Your task to perform on an android device: change your default location settings in chrome Image 0: 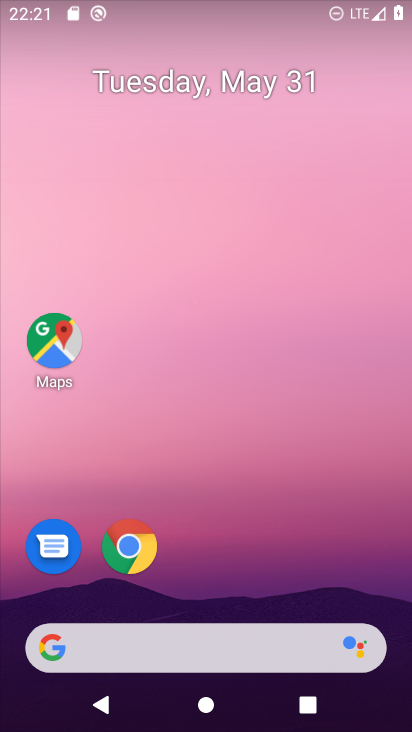
Step 0: click (121, 546)
Your task to perform on an android device: change your default location settings in chrome Image 1: 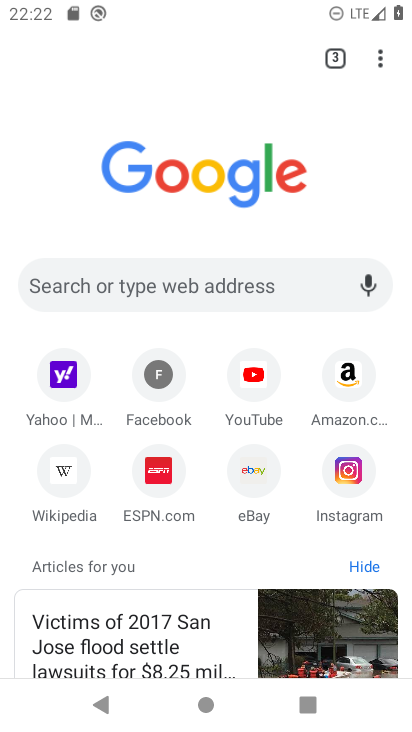
Step 1: click (378, 59)
Your task to perform on an android device: change your default location settings in chrome Image 2: 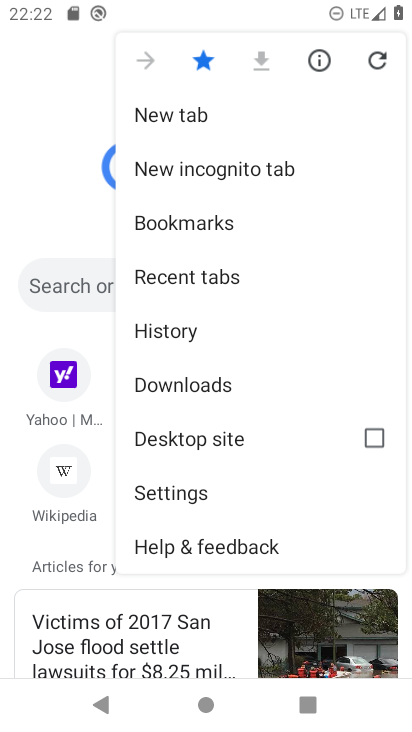
Step 2: drag from (271, 516) to (285, 251)
Your task to perform on an android device: change your default location settings in chrome Image 3: 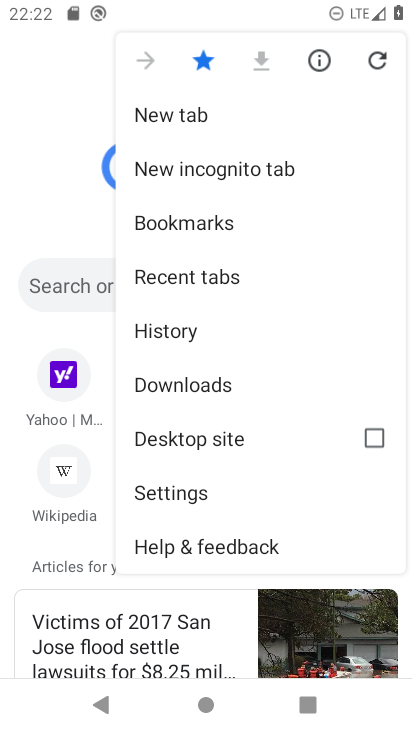
Step 3: click (187, 491)
Your task to perform on an android device: change your default location settings in chrome Image 4: 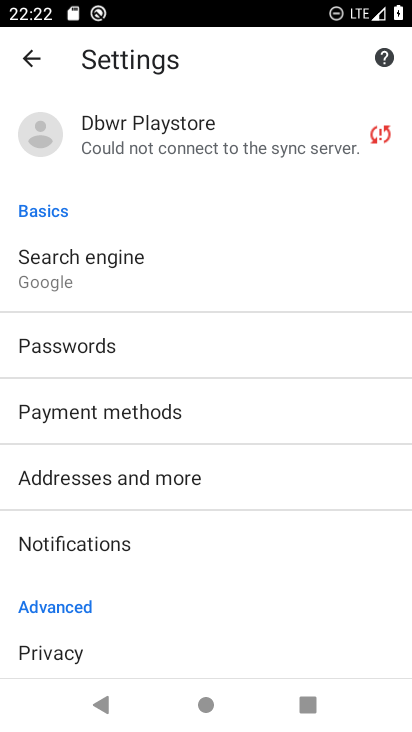
Step 4: drag from (228, 635) to (270, 249)
Your task to perform on an android device: change your default location settings in chrome Image 5: 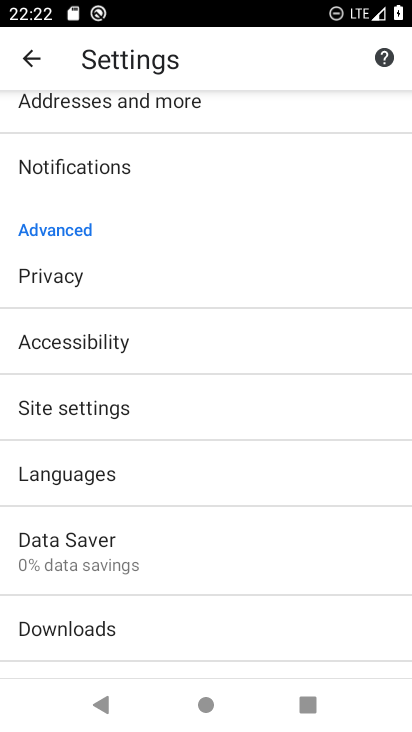
Step 5: drag from (231, 623) to (235, 346)
Your task to perform on an android device: change your default location settings in chrome Image 6: 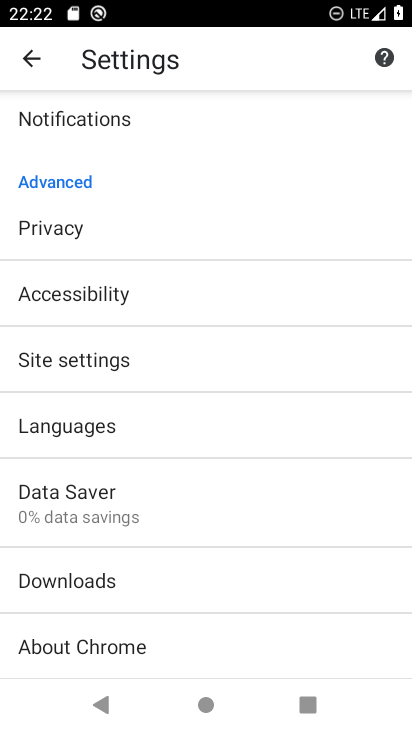
Step 6: drag from (213, 633) to (239, 251)
Your task to perform on an android device: change your default location settings in chrome Image 7: 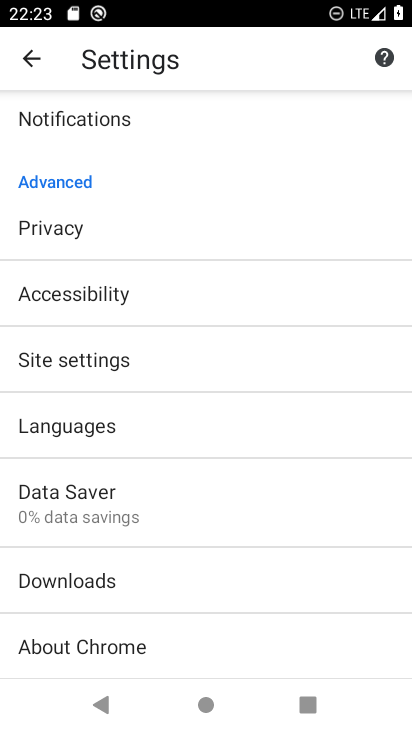
Step 7: click (93, 363)
Your task to perform on an android device: change your default location settings in chrome Image 8: 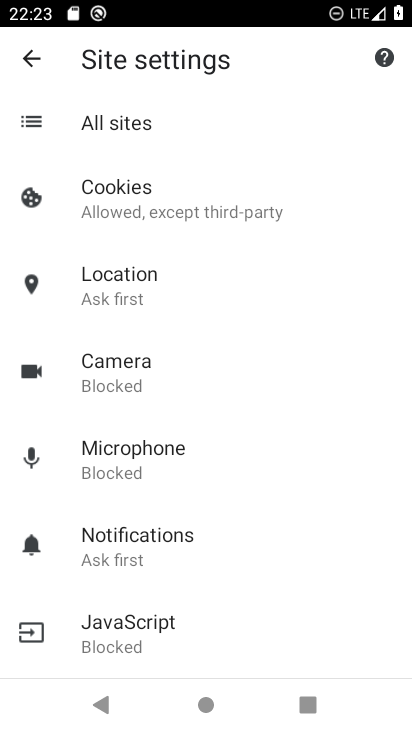
Step 8: click (112, 278)
Your task to perform on an android device: change your default location settings in chrome Image 9: 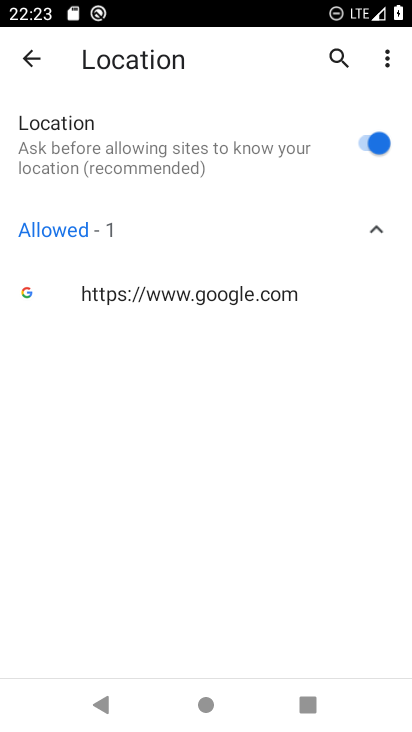
Step 9: task complete